Your task to perform on an android device: Clear the shopping cart on costco. Add lg ultragear to the cart on costco, then select checkout. Image 0: 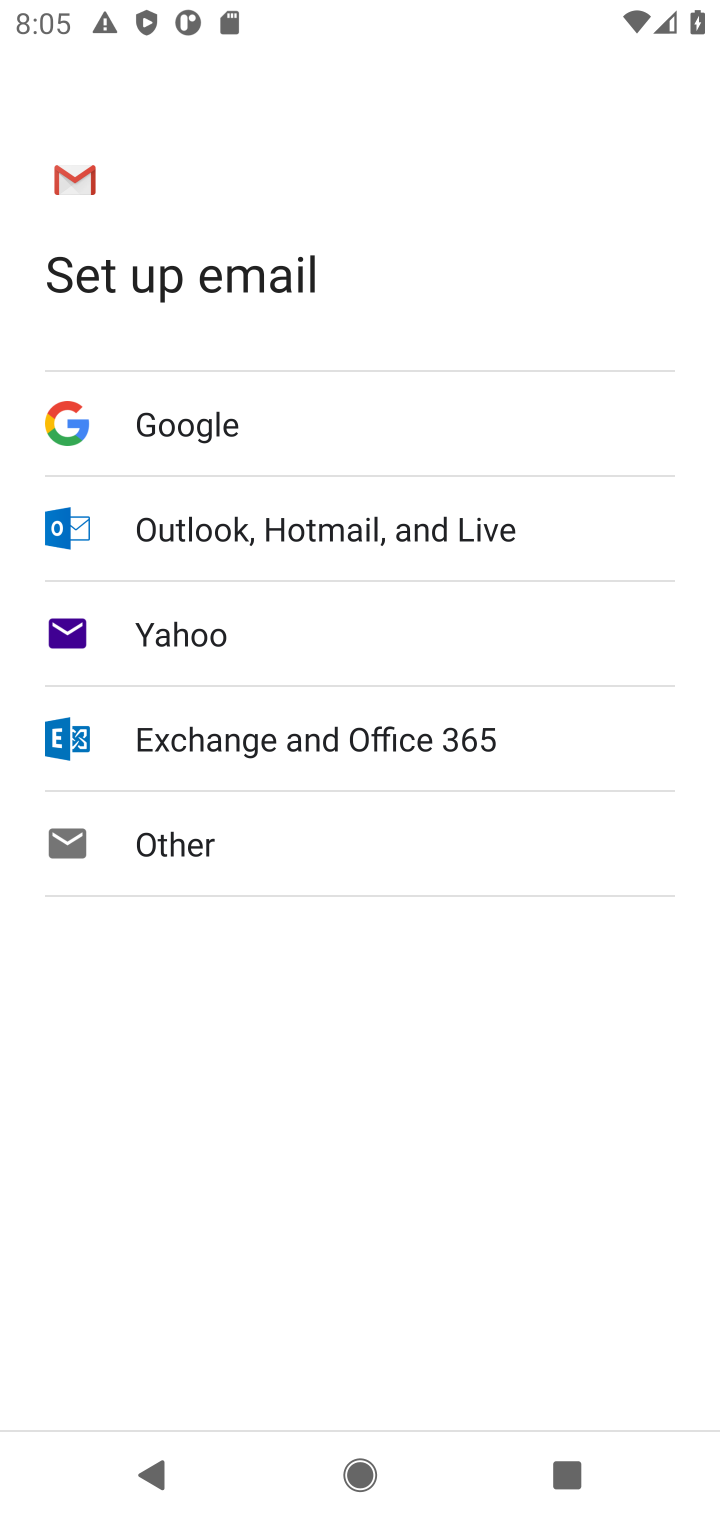
Step 0: press home button
Your task to perform on an android device: Clear the shopping cart on costco. Add lg ultragear to the cart on costco, then select checkout. Image 1: 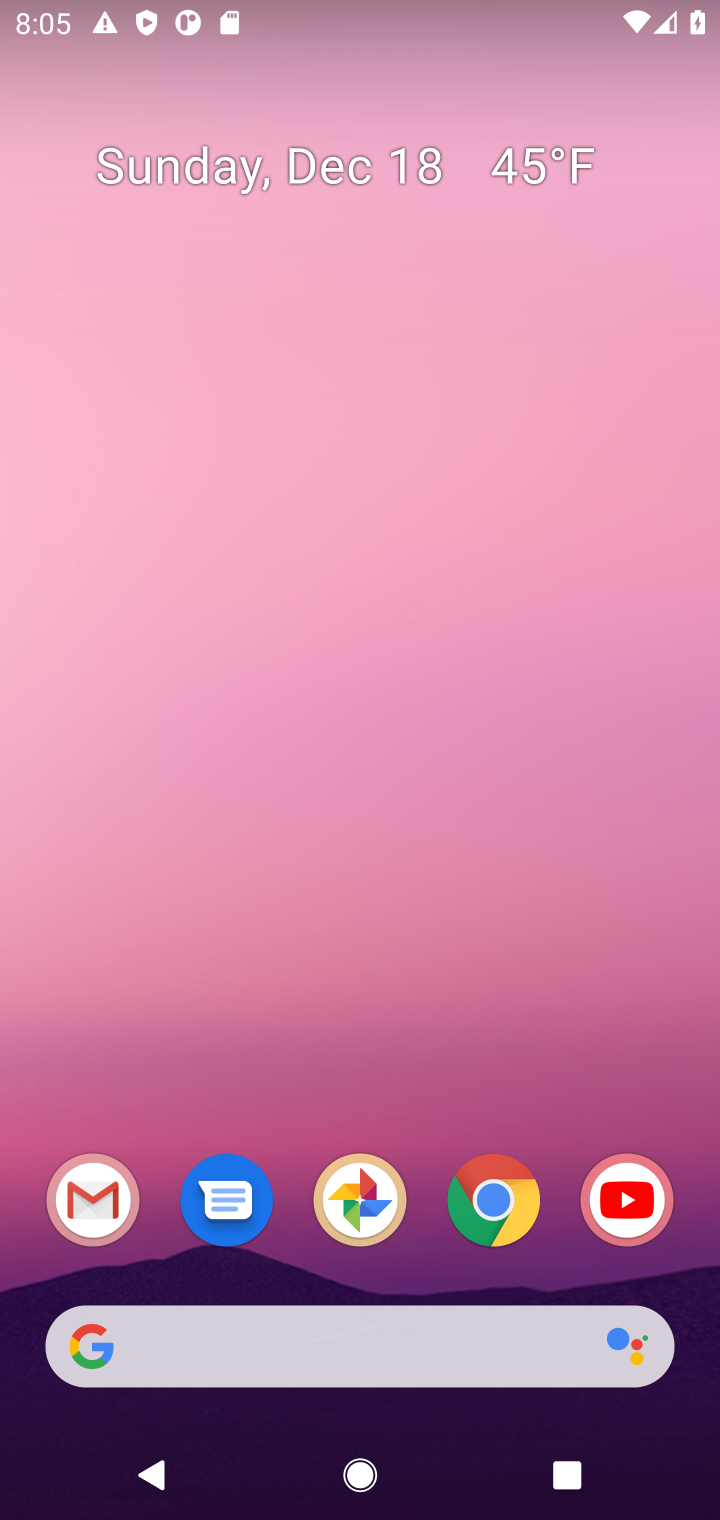
Step 1: click (502, 1220)
Your task to perform on an android device: Clear the shopping cart on costco. Add lg ultragear to the cart on costco, then select checkout. Image 2: 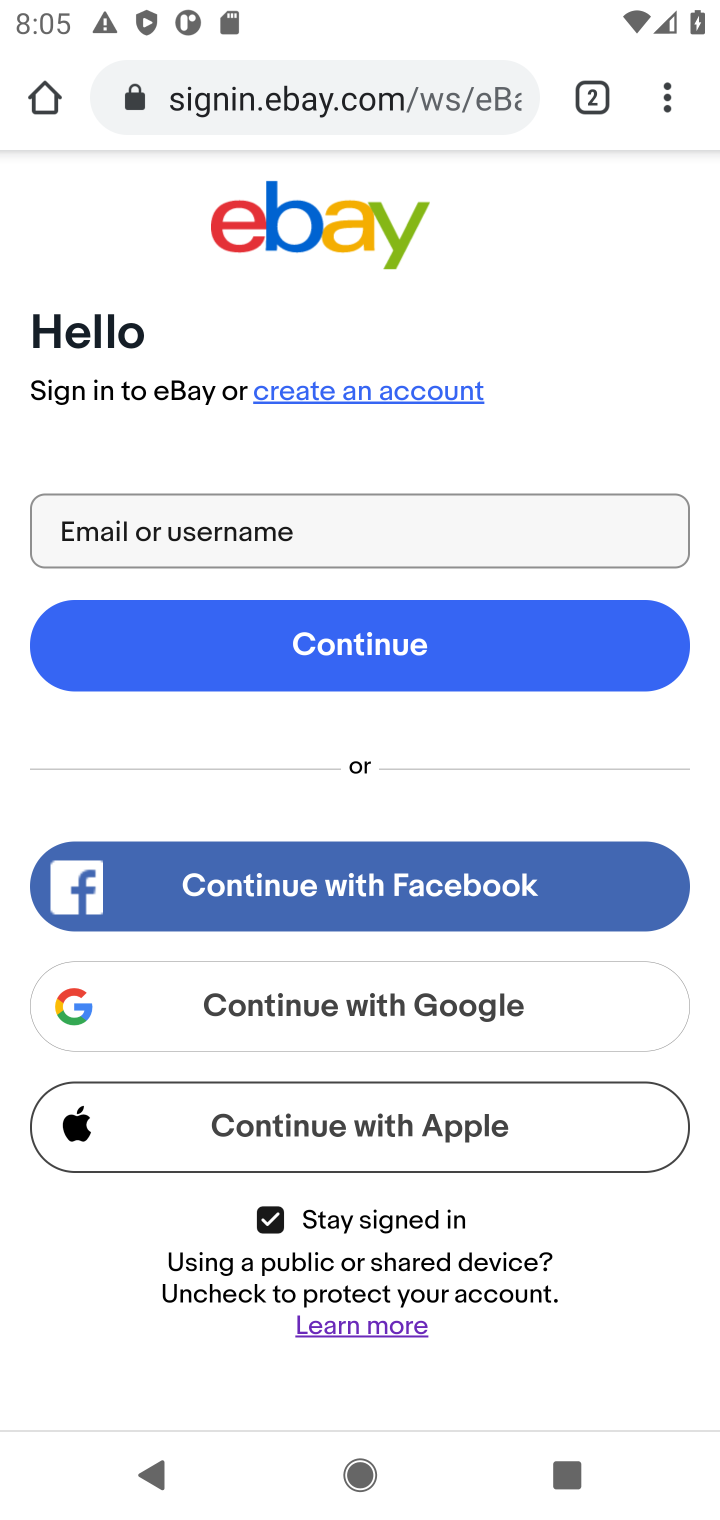
Step 2: click (290, 103)
Your task to perform on an android device: Clear the shopping cart on costco. Add lg ultragear to the cart on costco, then select checkout. Image 3: 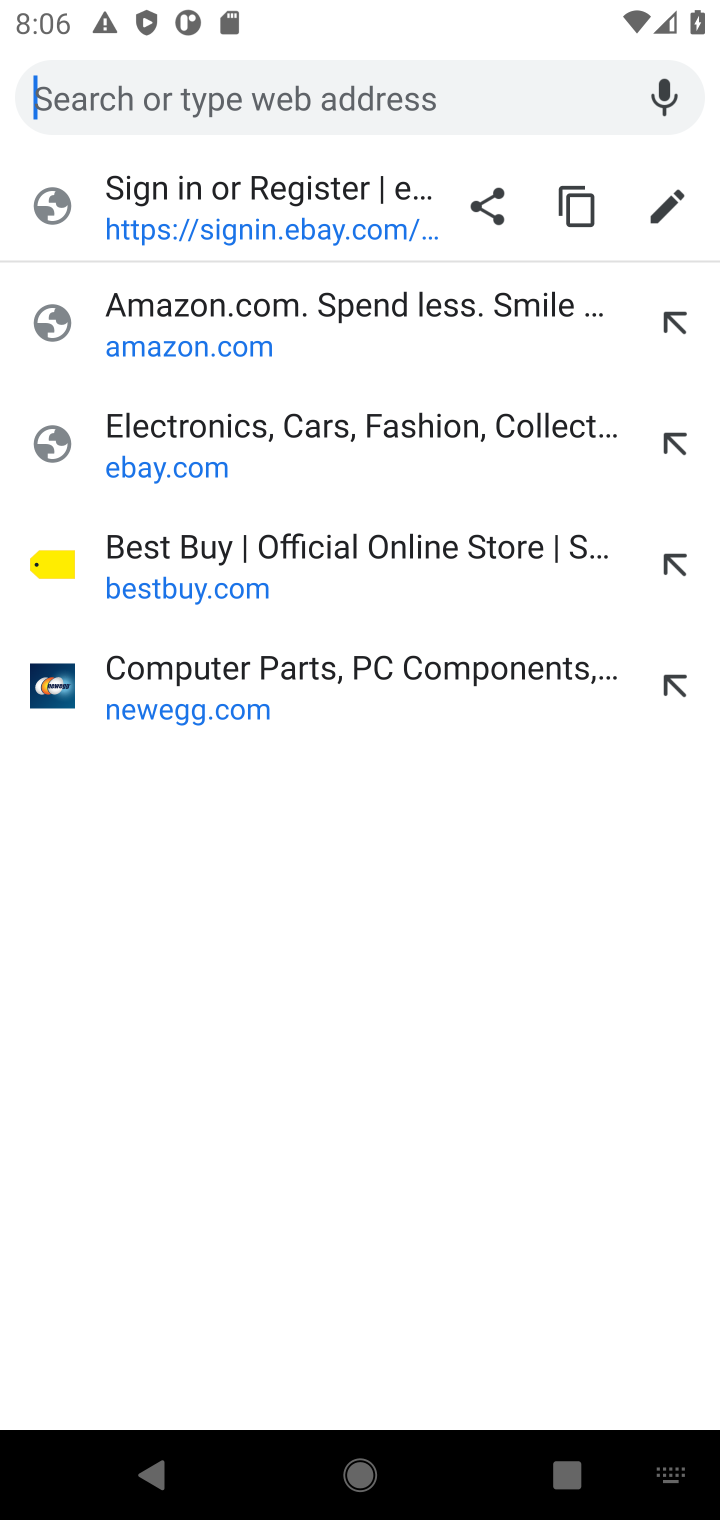
Step 3: type "costco.com"
Your task to perform on an android device: Clear the shopping cart on costco. Add lg ultragear to the cart on costco, then select checkout. Image 4: 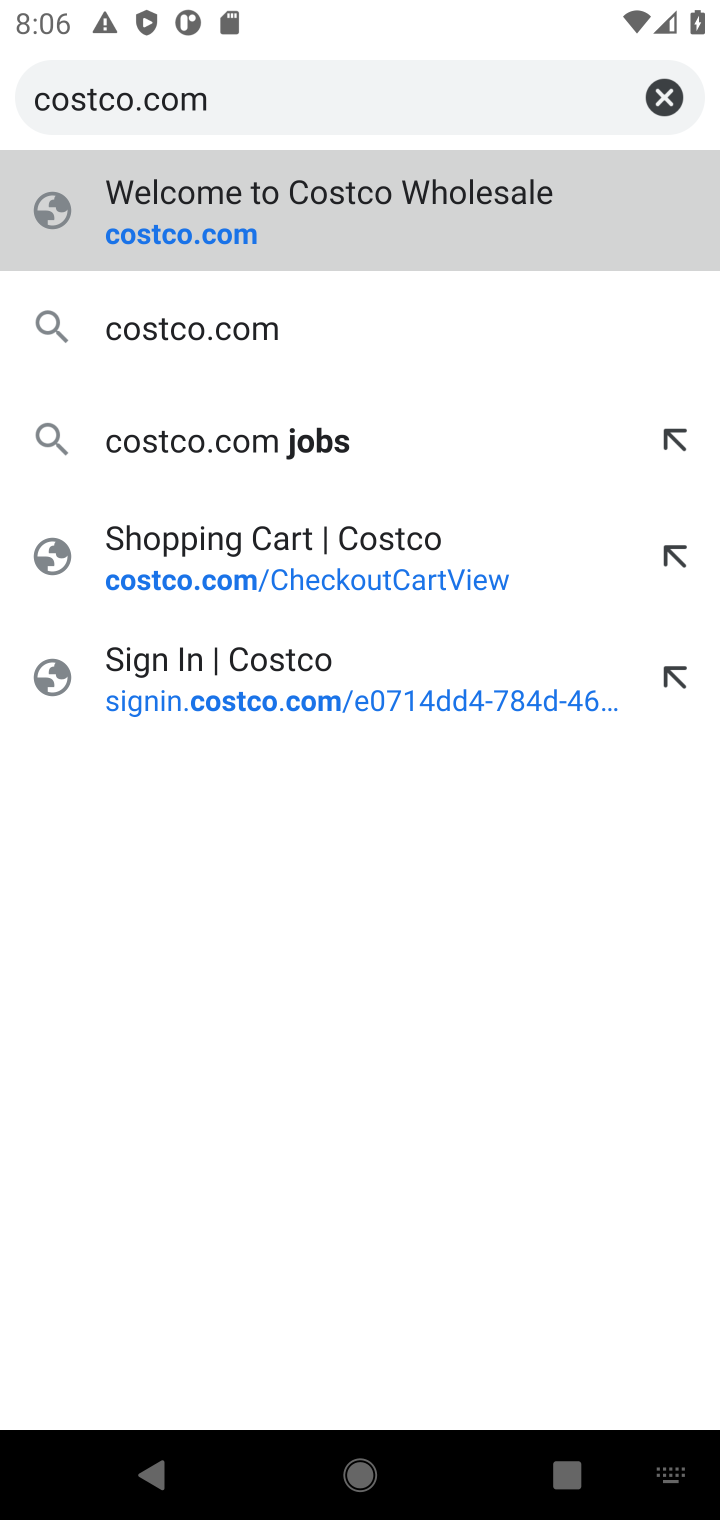
Step 4: click (132, 251)
Your task to perform on an android device: Clear the shopping cart on costco. Add lg ultragear to the cart on costco, then select checkout. Image 5: 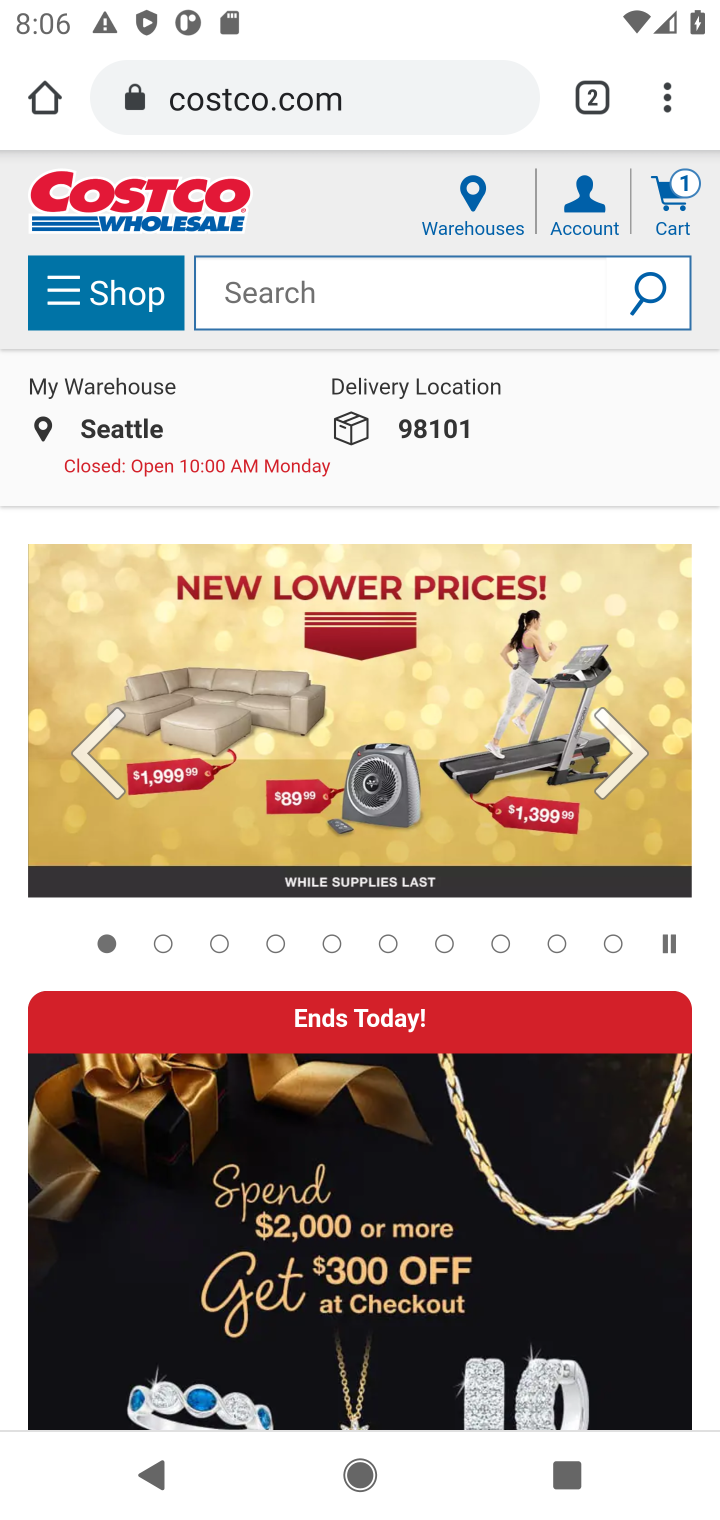
Step 5: click (665, 198)
Your task to perform on an android device: Clear the shopping cart on costco. Add lg ultragear to the cart on costco, then select checkout. Image 6: 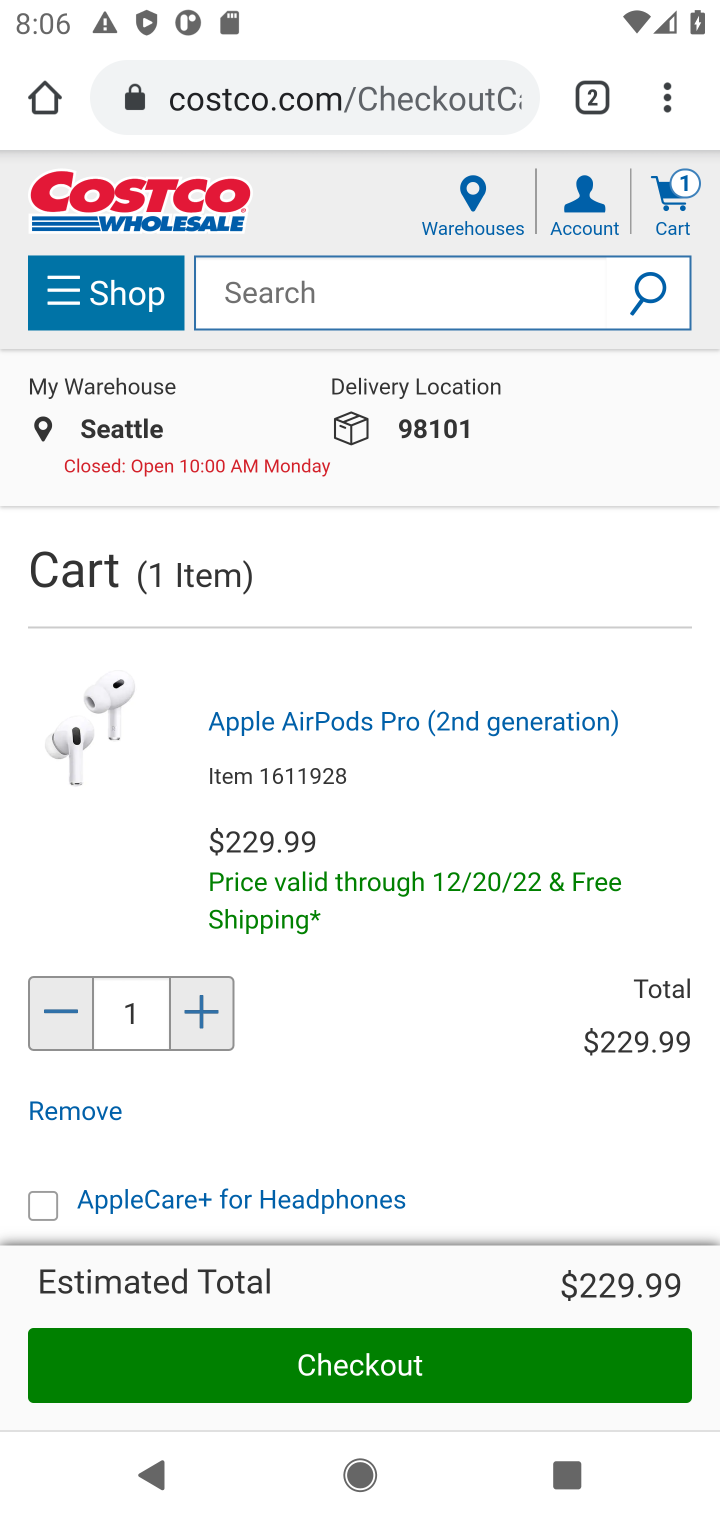
Step 6: drag from (334, 1059) to (360, 496)
Your task to perform on an android device: Clear the shopping cart on costco. Add lg ultragear to the cart on costco, then select checkout. Image 7: 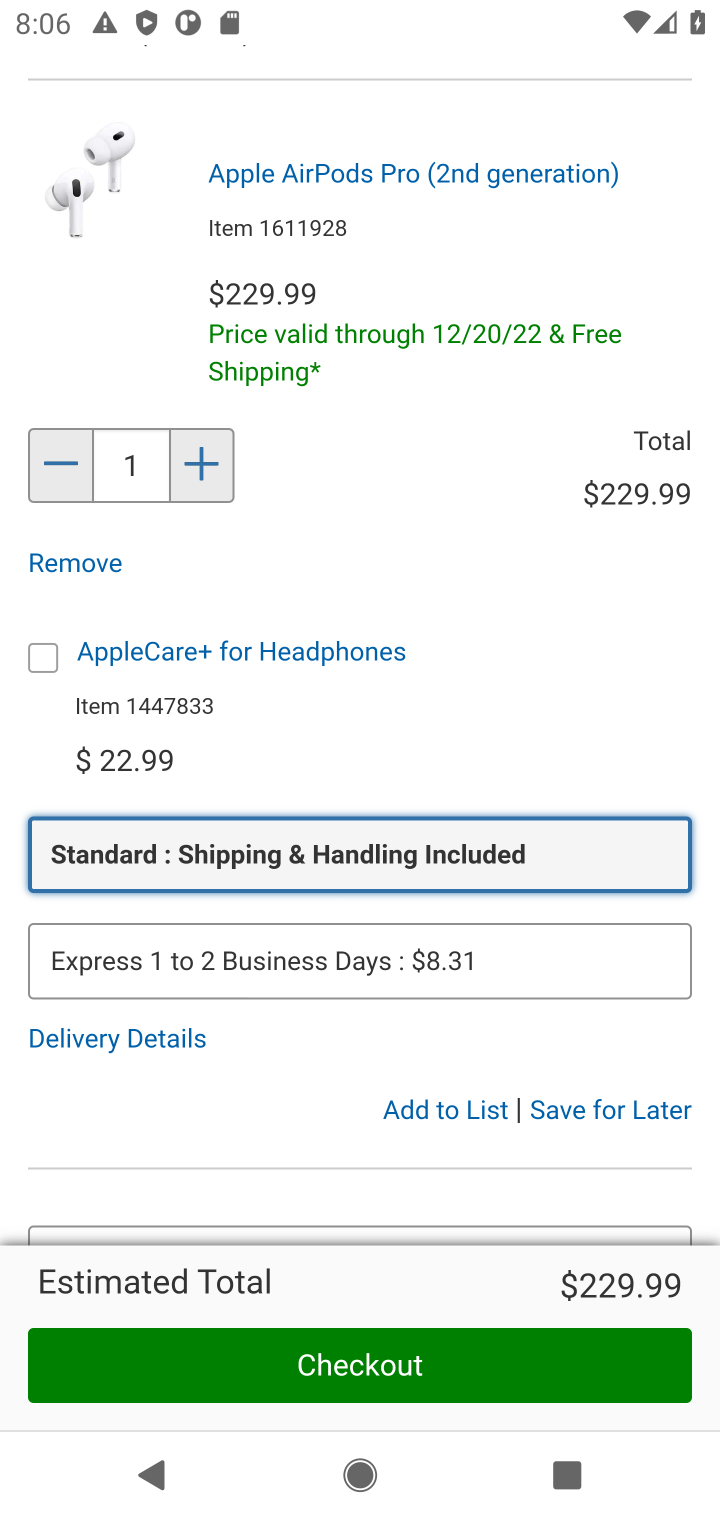
Step 7: click (606, 1101)
Your task to perform on an android device: Clear the shopping cart on costco. Add lg ultragear to the cart on costco, then select checkout. Image 8: 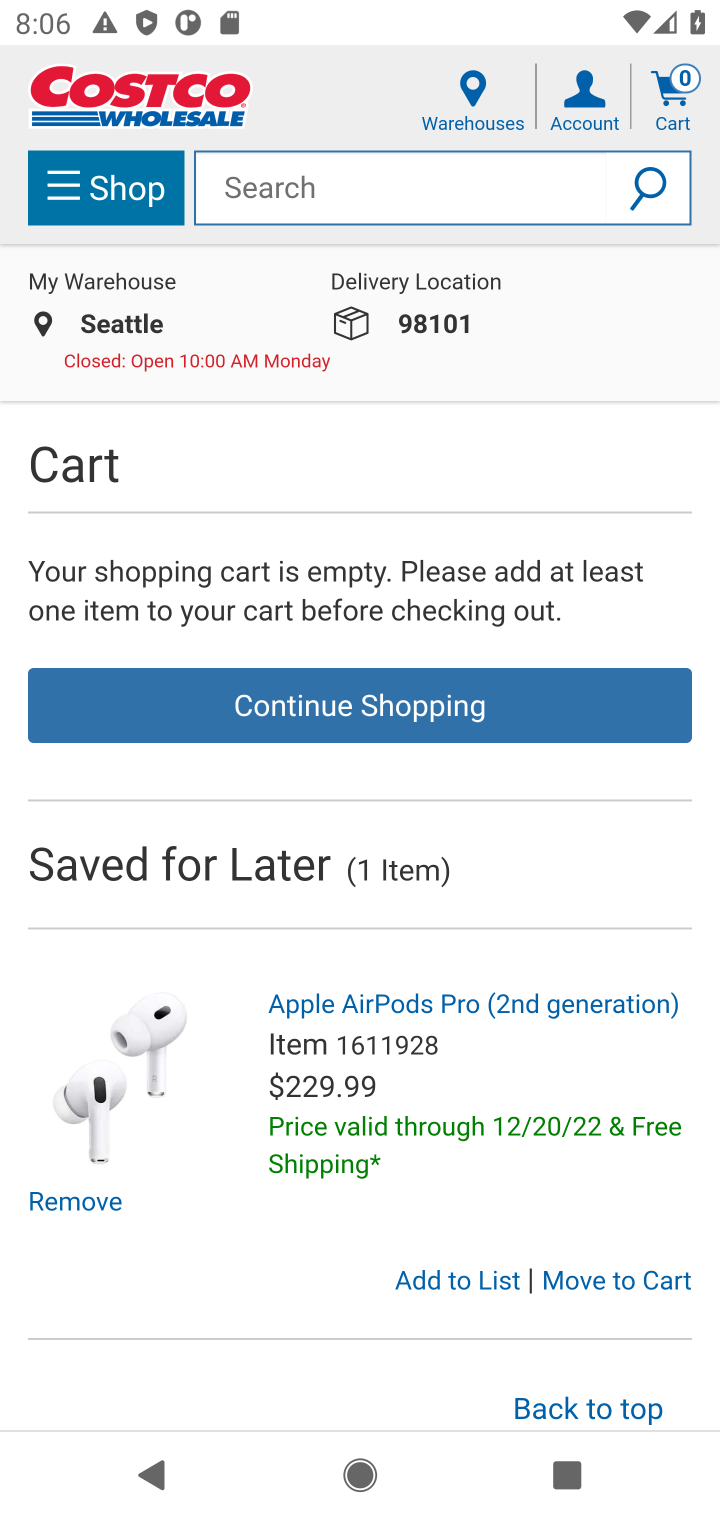
Step 8: click (275, 191)
Your task to perform on an android device: Clear the shopping cart on costco. Add lg ultragear to the cart on costco, then select checkout. Image 9: 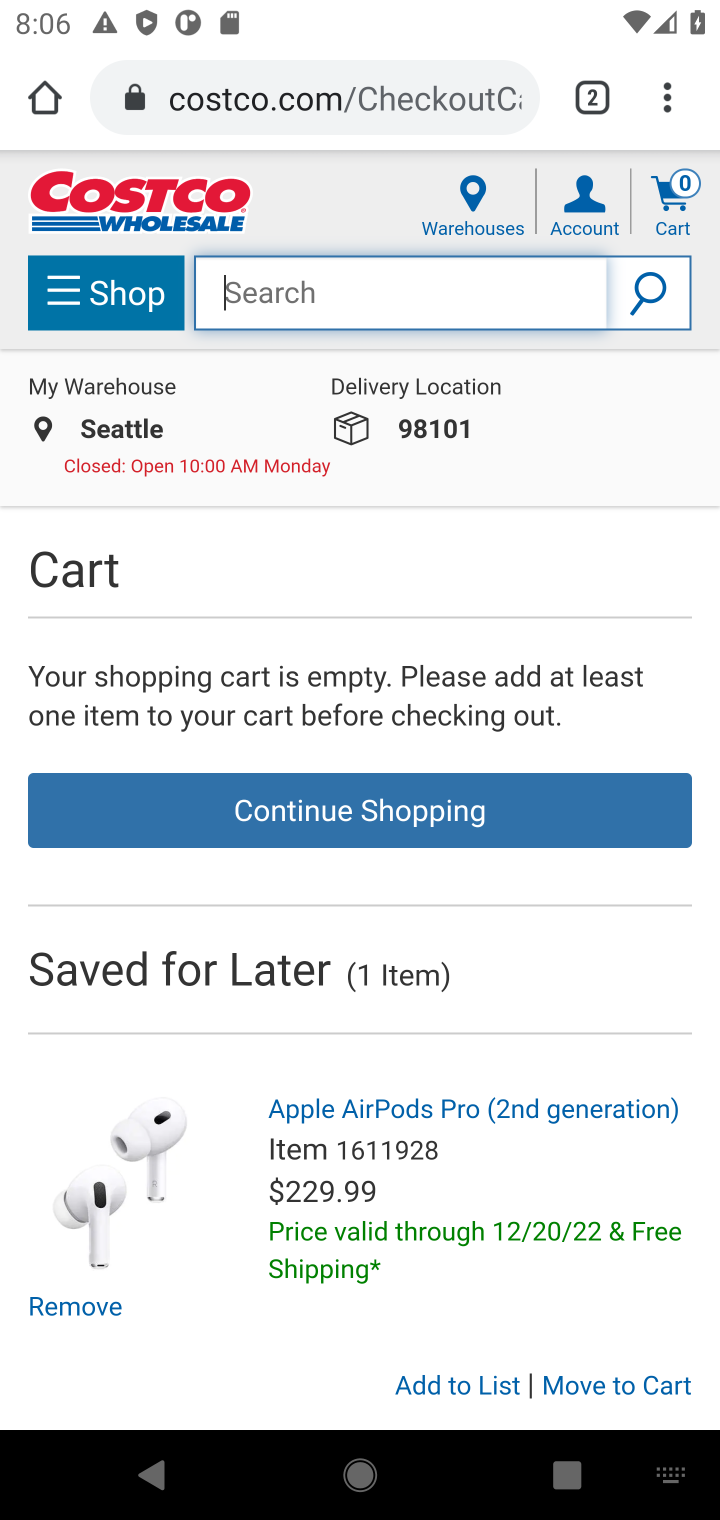
Step 9: type " lg ultragear"
Your task to perform on an android device: Clear the shopping cart on costco. Add lg ultragear to the cart on costco, then select checkout. Image 10: 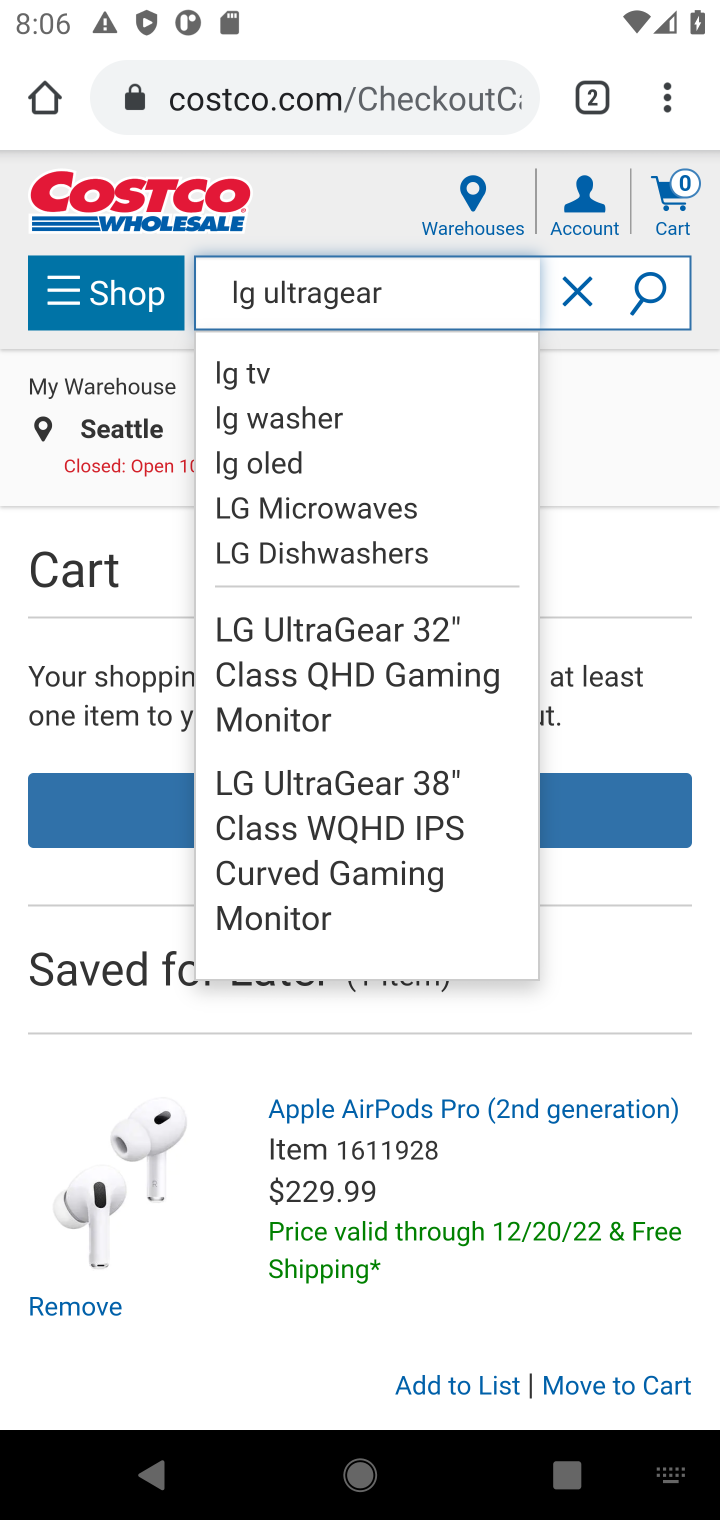
Step 10: click (642, 291)
Your task to perform on an android device: Clear the shopping cart on costco. Add lg ultragear to the cart on costco, then select checkout. Image 11: 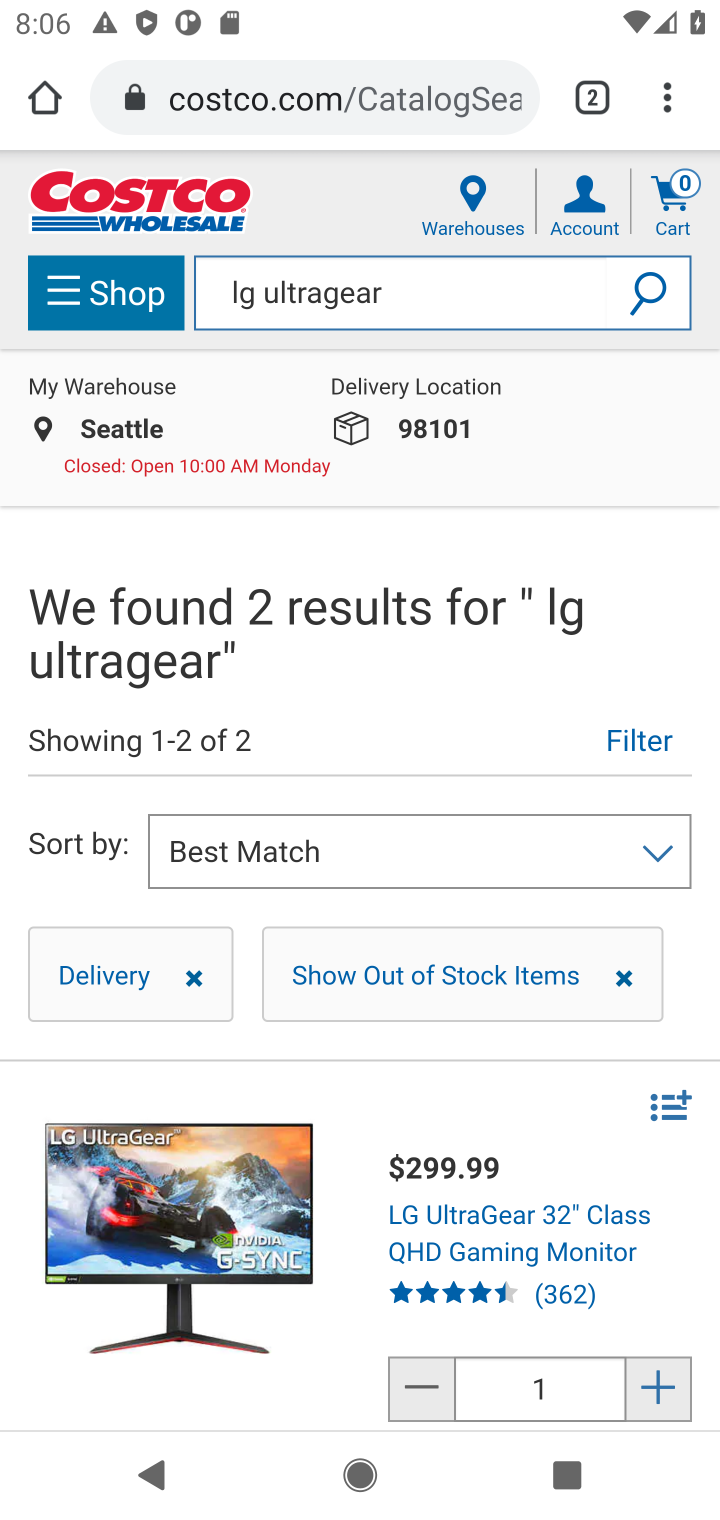
Step 11: drag from (260, 1055) to (292, 673)
Your task to perform on an android device: Clear the shopping cart on costco. Add lg ultragear to the cart on costco, then select checkout. Image 12: 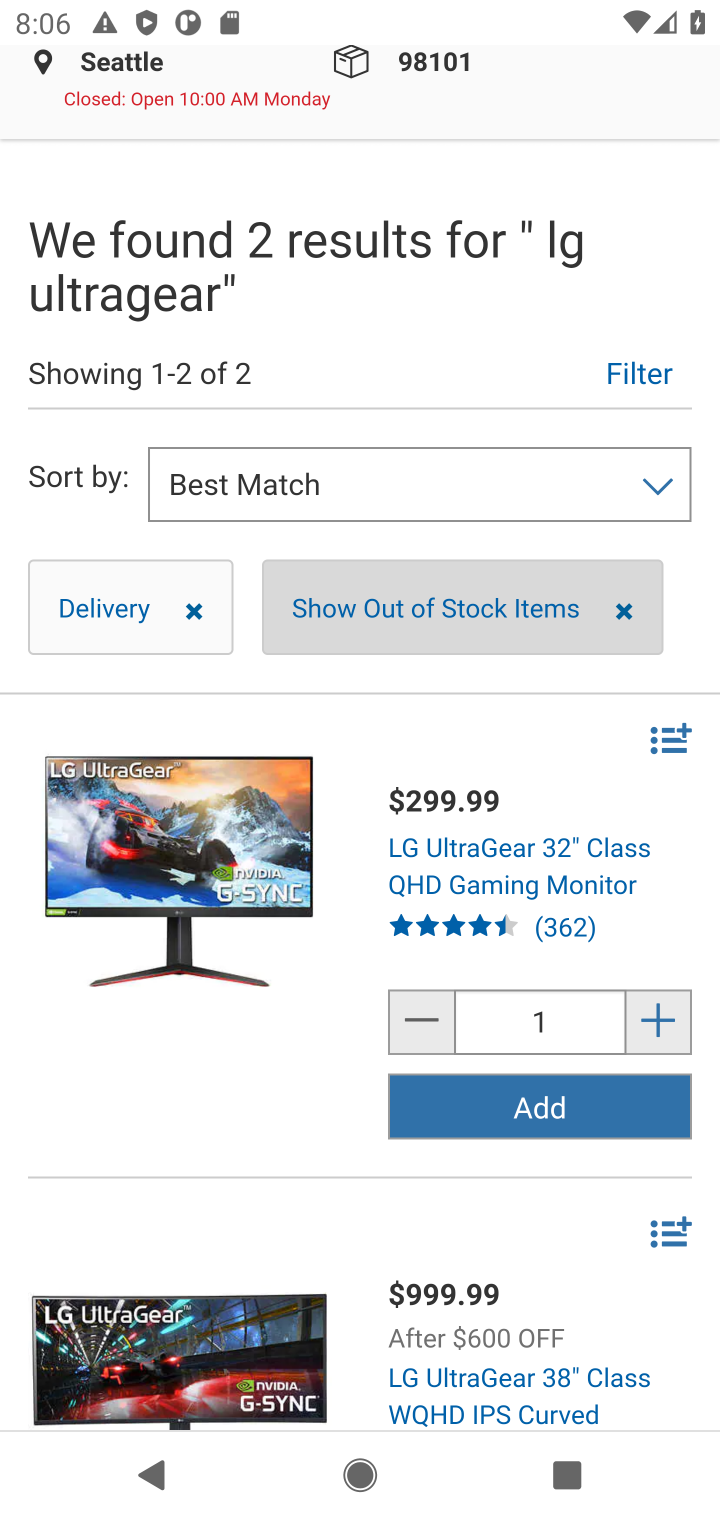
Step 12: click (469, 1113)
Your task to perform on an android device: Clear the shopping cart on costco. Add lg ultragear to the cart on costco, then select checkout. Image 13: 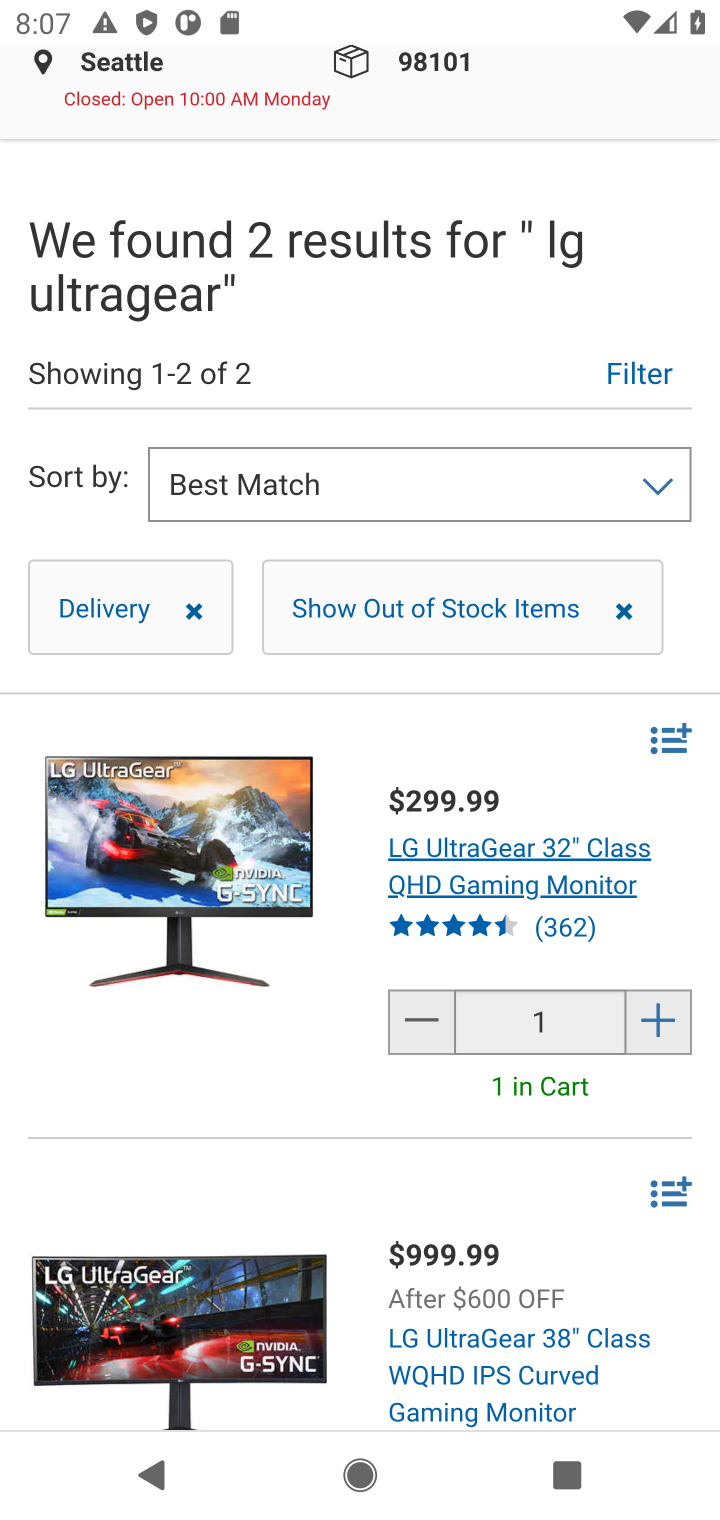
Step 13: drag from (457, 489) to (407, 957)
Your task to perform on an android device: Clear the shopping cart on costco. Add lg ultragear to the cart on costco, then select checkout. Image 14: 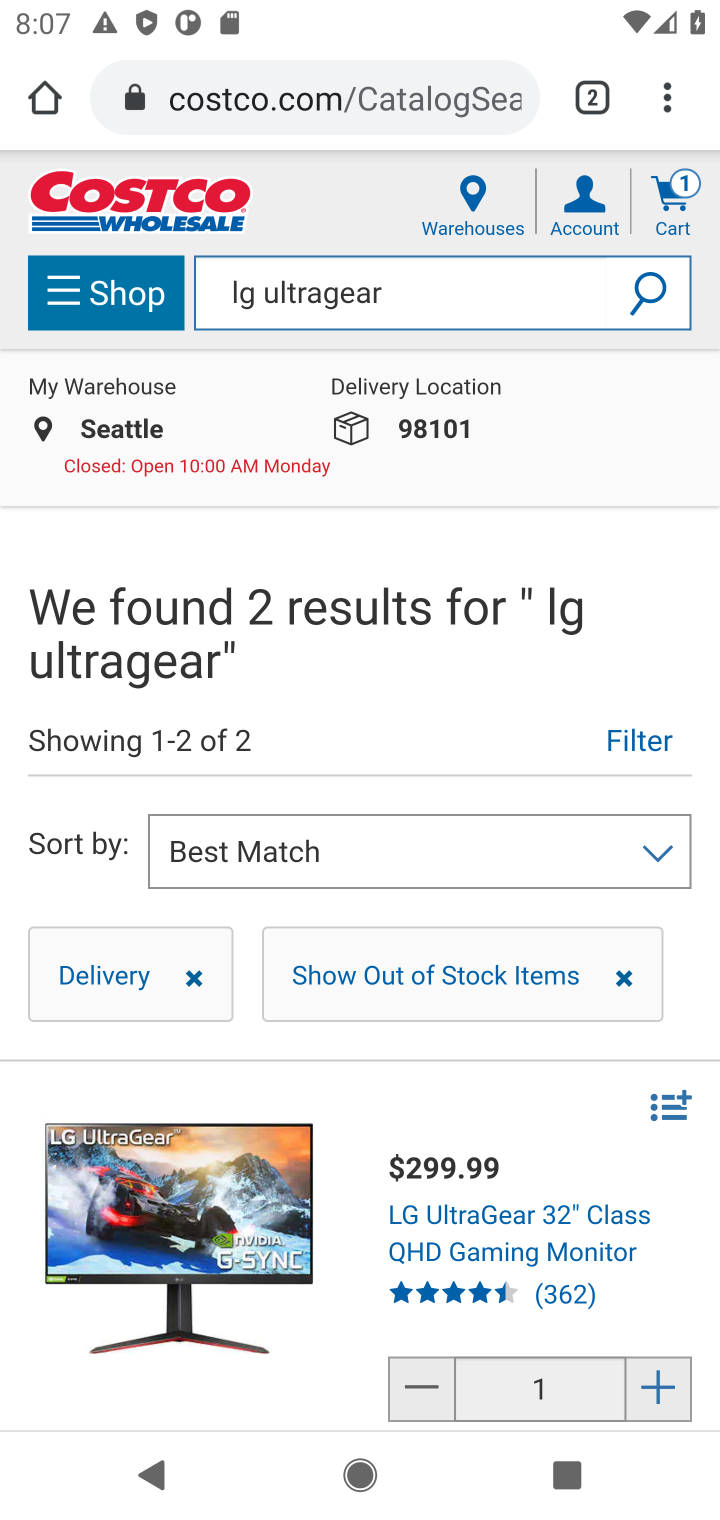
Step 14: click (678, 220)
Your task to perform on an android device: Clear the shopping cart on costco. Add lg ultragear to the cart on costco, then select checkout. Image 15: 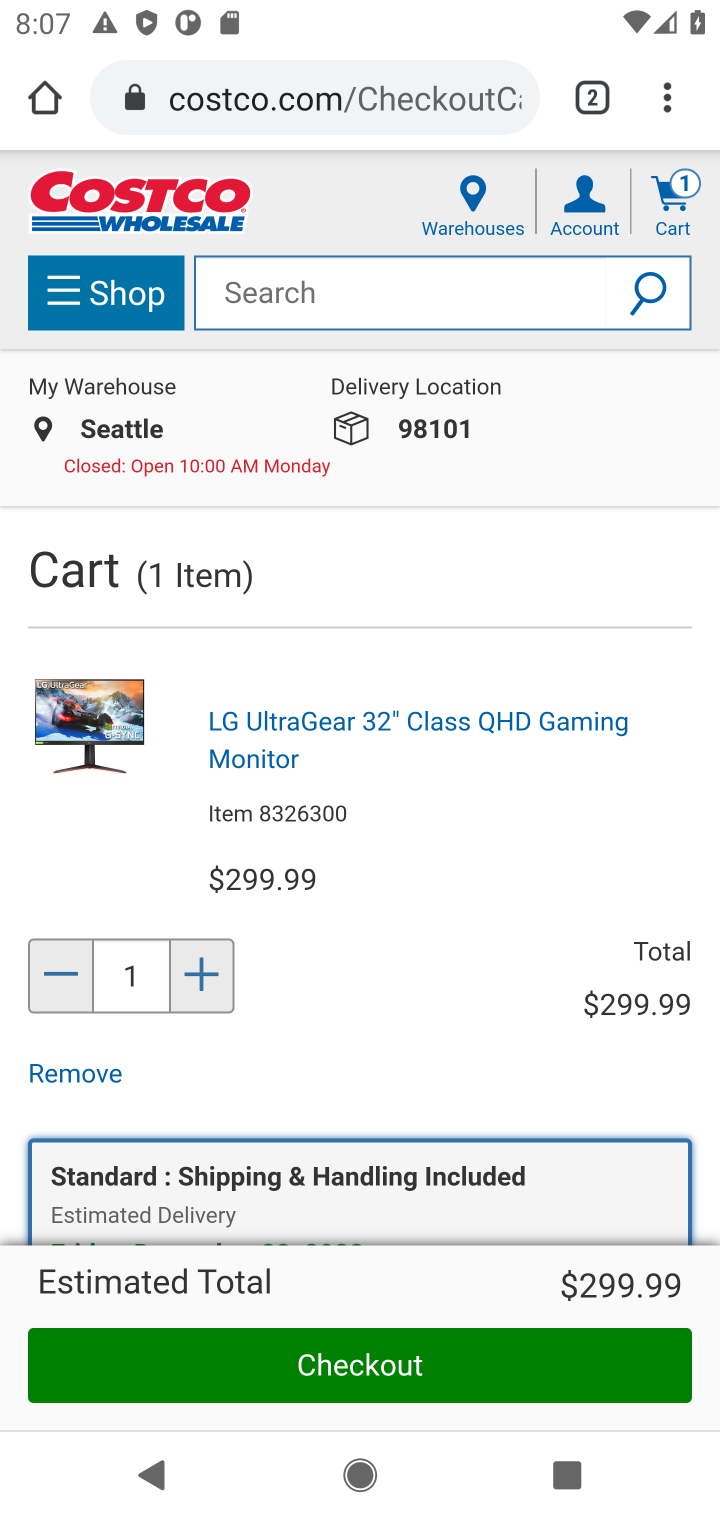
Step 15: click (306, 1373)
Your task to perform on an android device: Clear the shopping cart on costco. Add lg ultragear to the cart on costco, then select checkout. Image 16: 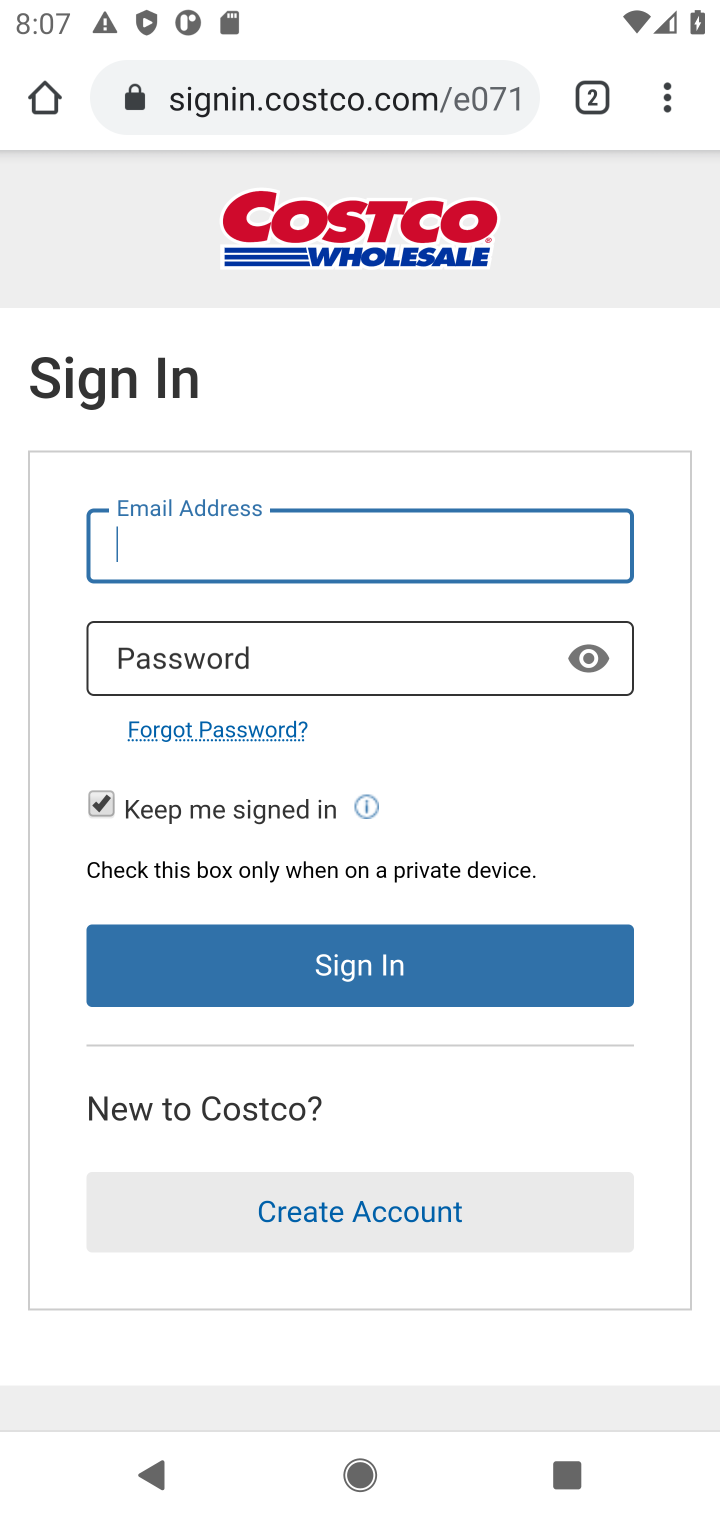
Step 16: task complete